Your task to perform on an android device: turn on javascript in the chrome app Image 0: 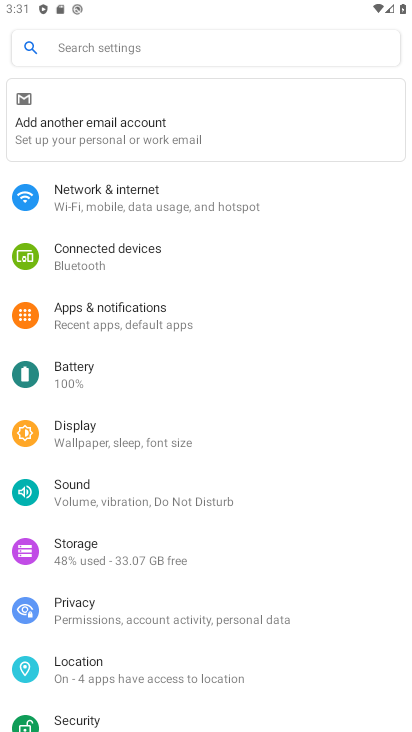
Step 0: press home button
Your task to perform on an android device: turn on javascript in the chrome app Image 1: 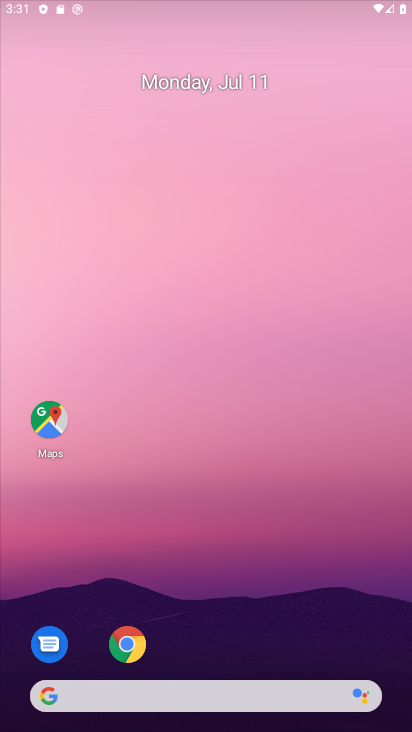
Step 1: drag from (216, 373) to (267, 9)
Your task to perform on an android device: turn on javascript in the chrome app Image 2: 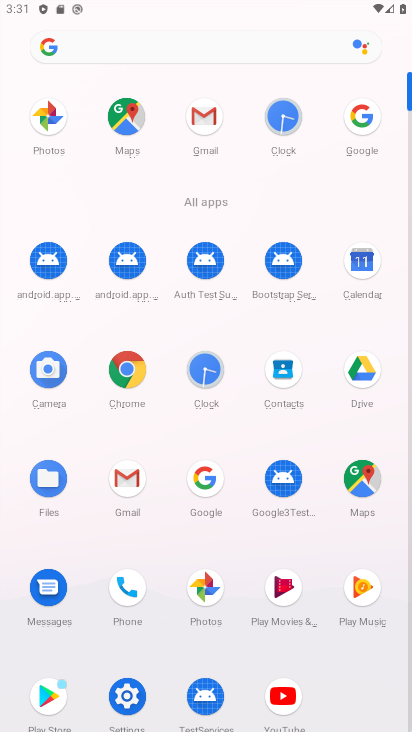
Step 2: click (121, 374)
Your task to perform on an android device: turn on javascript in the chrome app Image 3: 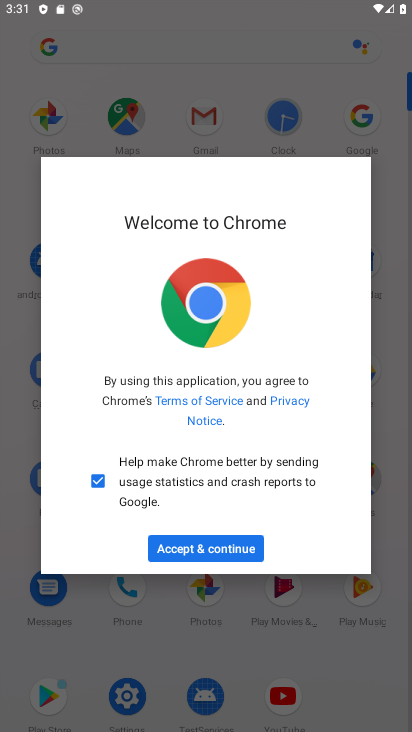
Step 3: click (194, 553)
Your task to perform on an android device: turn on javascript in the chrome app Image 4: 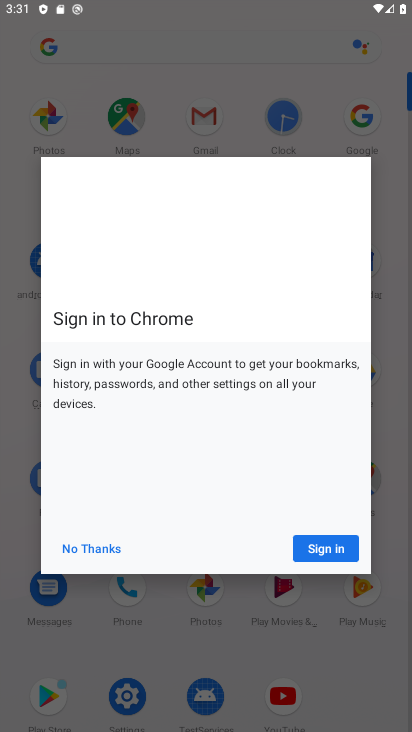
Step 4: click (90, 554)
Your task to perform on an android device: turn on javascript in the chrome app Image 5: 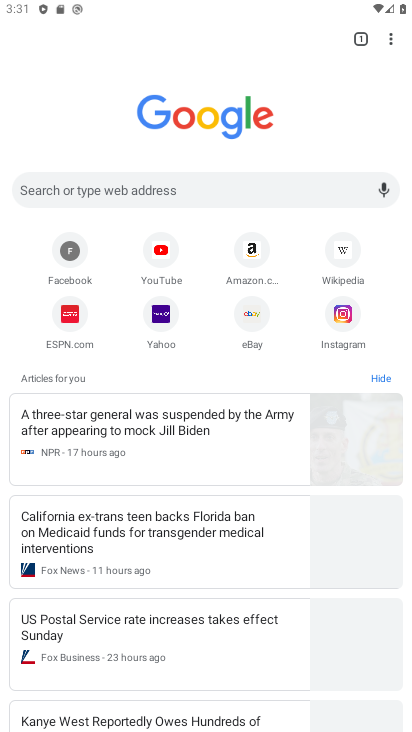
Step 5: drag from (394, 36) to (267, 325)
Your task to perform on an android device: turn on javascript in the chrome app Image 6: 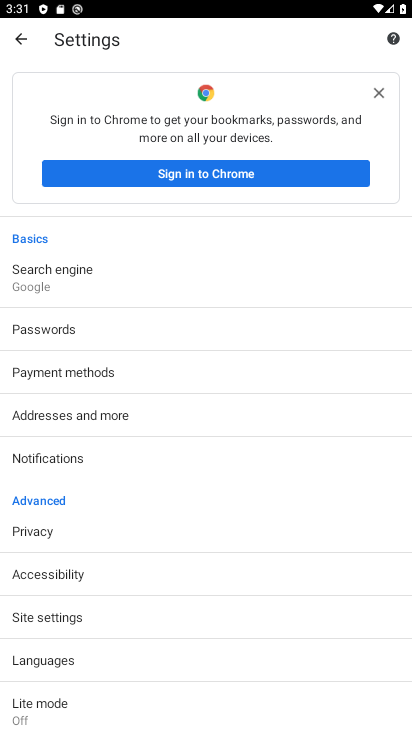
Step 6: click (124, 608)
Your task to perform on an android device: turn on javascript in the chrome app Image 7: 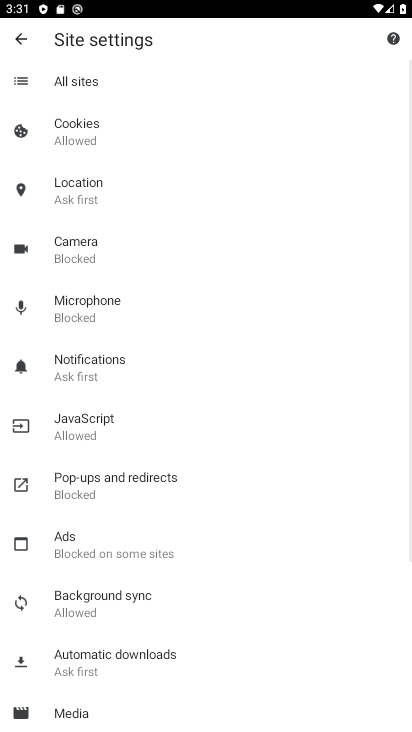
Step 7: click (91, 425)
Your task to perform on an android device: turn on javascript in the chrome app Image 8: 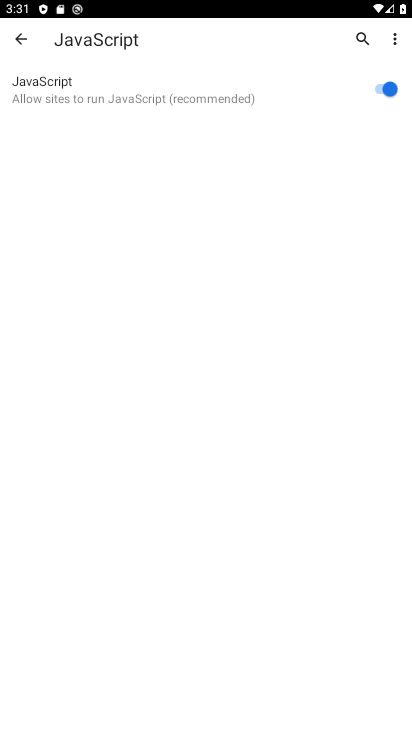
Step 8: task complete